Your task to perform on an android device: turn off wifi Image 0: 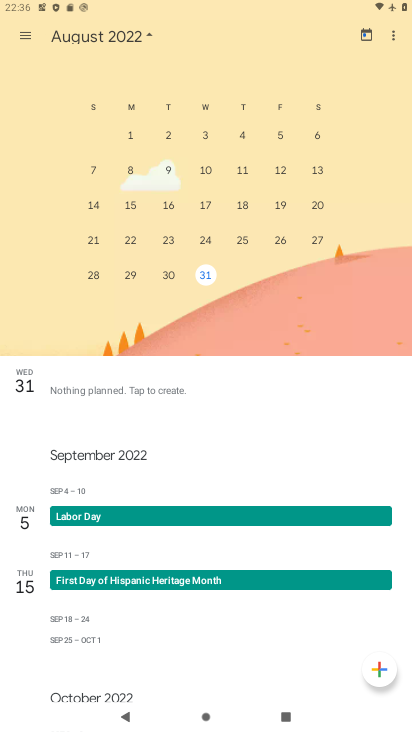
Step 0: press home button
Your task to perform on an android device: turn off wifi Image 1: 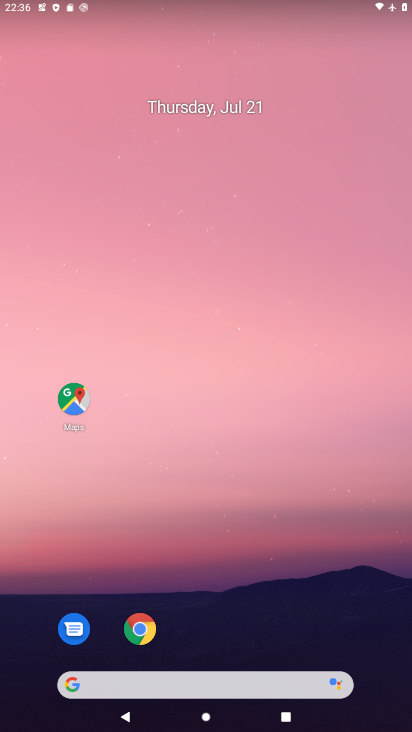
Step 1: drag from (200, 0) to (244, 544)
Your task to perform on an android device: turn off wifi Image 2: 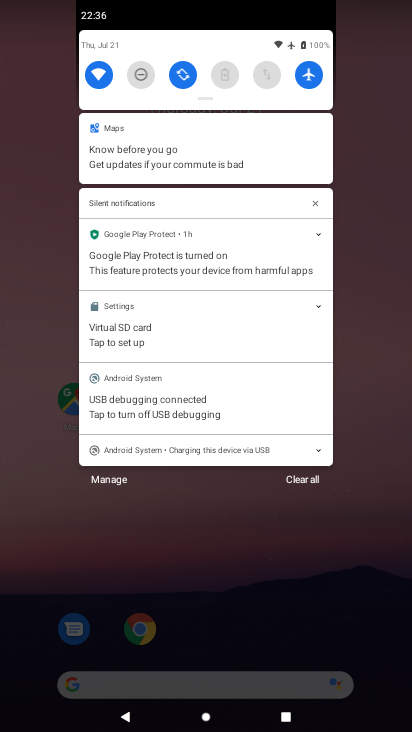
Step 2: click (105, 78)
Your task to perform on an android device: turn off wifi Image 3: 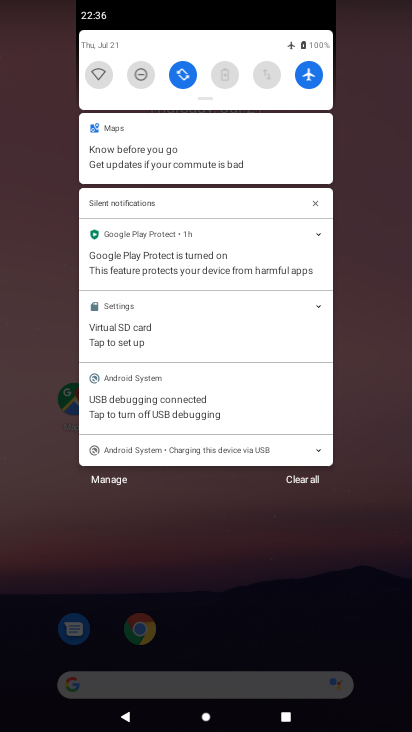
Step 3: task complete